Your task to perform on an android device: turn pop-ups off in chrome Image 0: 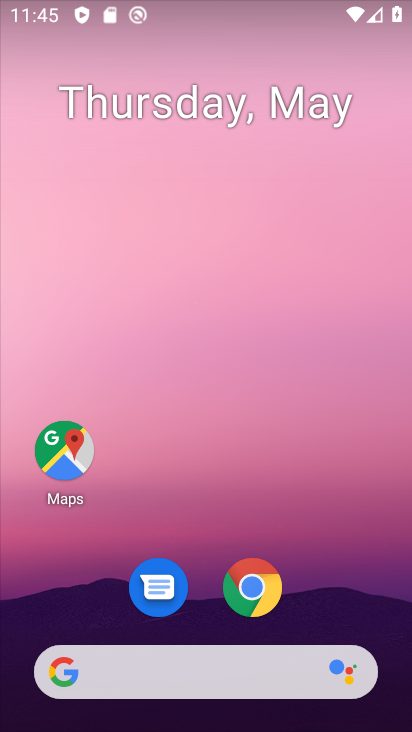
Step 0: click (264, 587)
Your task to perform on an android device: turn pop-ups off in chrome Image 1: 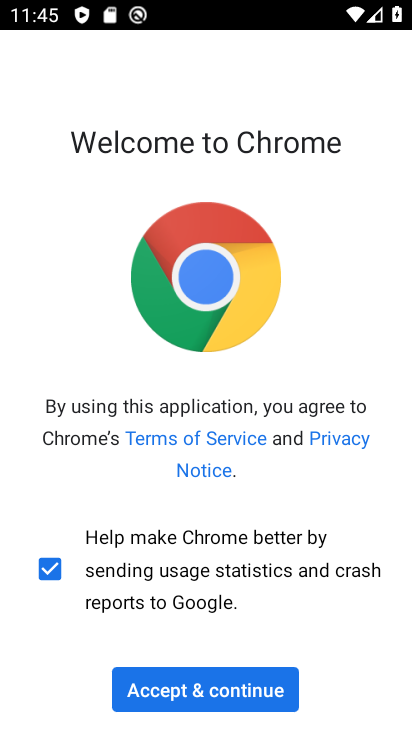
Step 1: click (245, 699)
Your task to perform on an android device: turn pop-ups off in chrome Image 2: 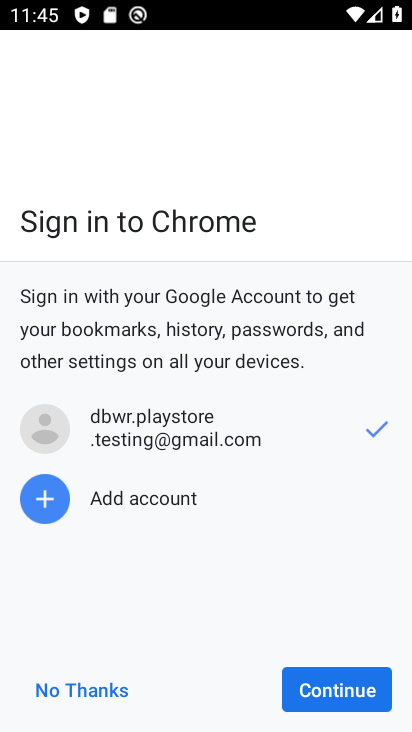
Step 2: click (376, 697)
Your task to perform on an android device: turn pop-ups off in chrome Image 3: 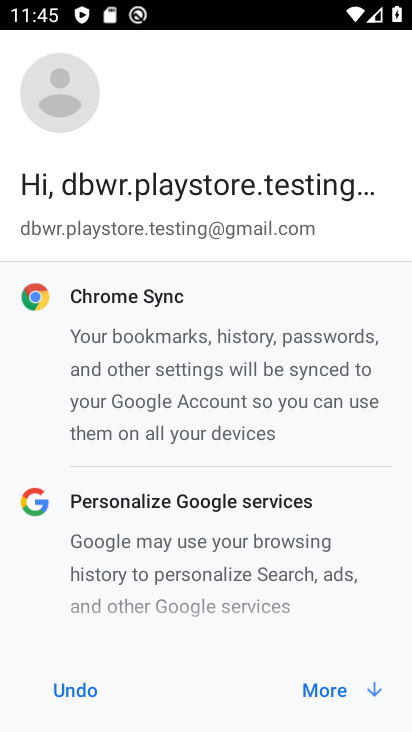
Step 3: click (350, 688)
Your task to perform on an android device: turn pop-ups off in chrome Image 4: 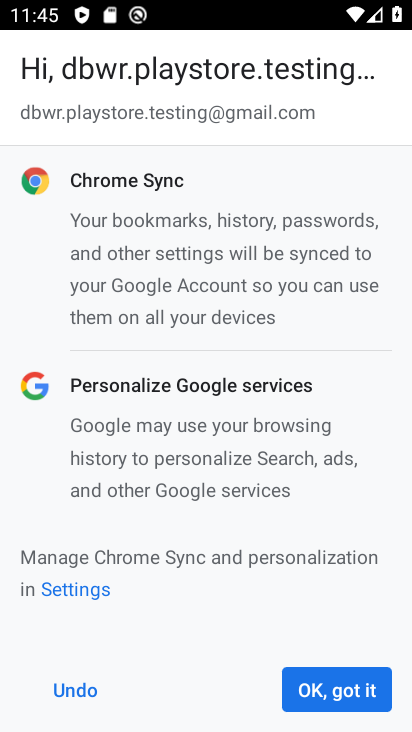
Step 4: click (350, 688)
Your task to perform on an android device: turn pop-ups off in chrome Image 5: 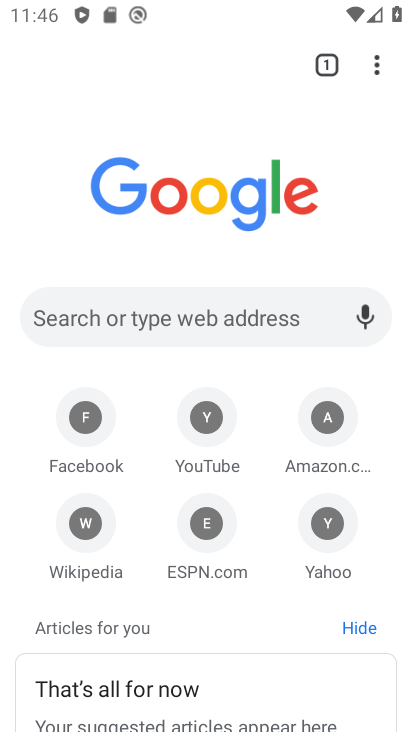
Step 5: click (378, 64)
Your task to perform on an android device: turn pop-ups off in chrome Image 6: 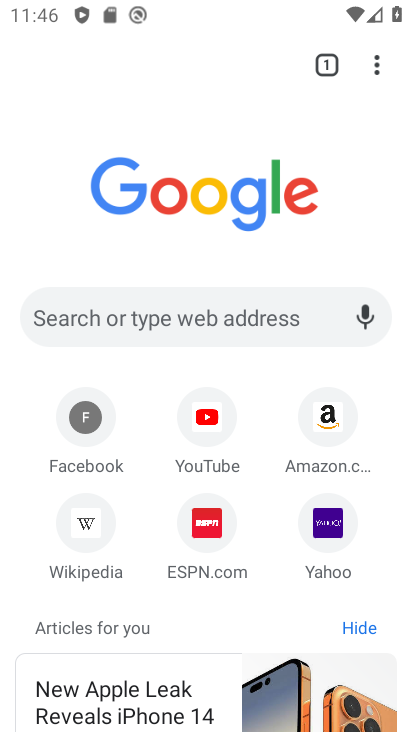
Step 6: click (374, 65)
Your task to perform on an android device: turn pop-ups off in chrome Image 7: 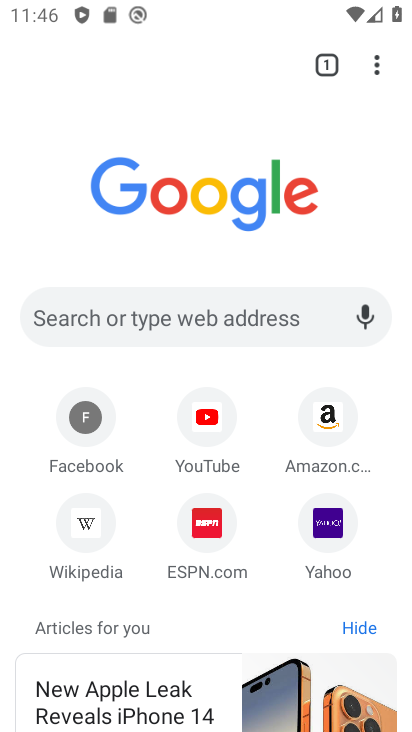
Step 7: click (373, 57)
Your task to perform on an android device: turn pop-ups off in chrome Image 8: 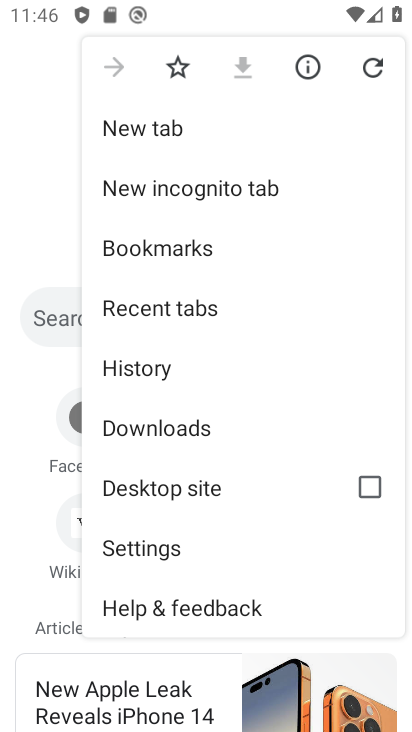
Step 8: click (179, 560)
Your task to perform on an android device: turn pop-ups off in chrome Image 9: 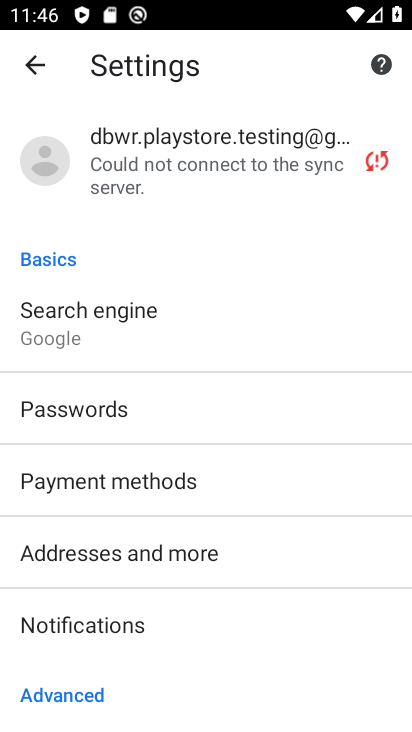
Step 9: drag from (317, 599) to (308, 214)
Your task to perform on an android device: turn pop-ups off in chrome Image 10: 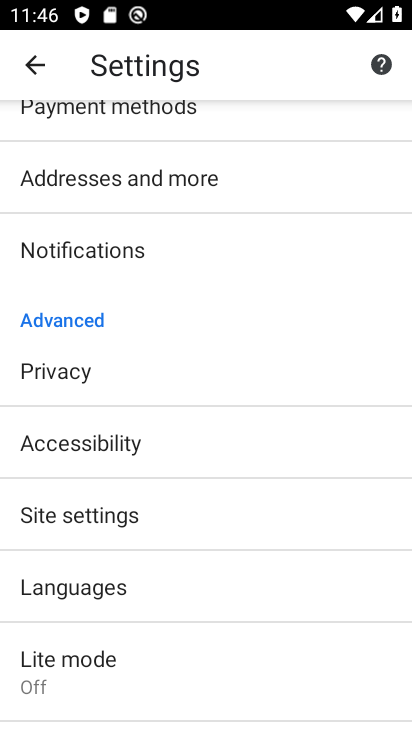
Step 10: click (107, 530)
Your task to perform on an android device: turn pop-ups off in chrome Image 11: 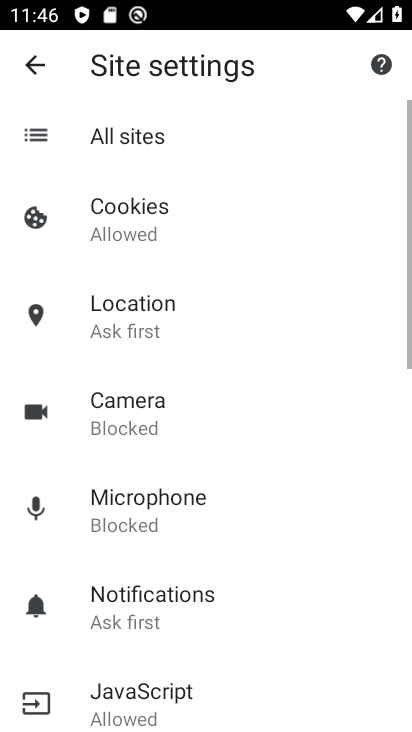
Step 11: drag from (269, 687) to (271, 314)
Your task to perform on an android device: turn pop-ups off in chrome Image 12: 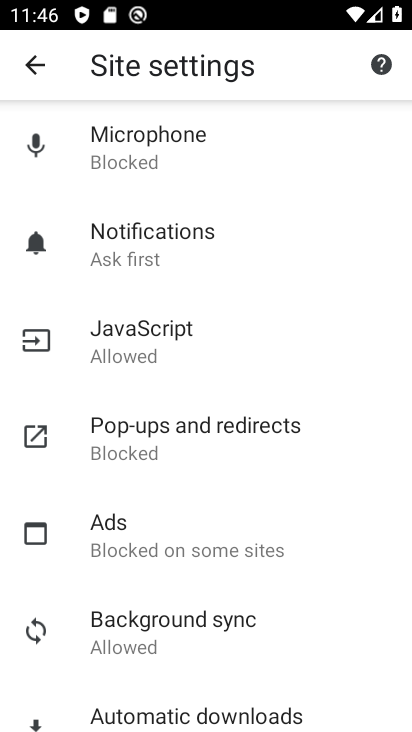
Step 12: click (193, 437)
Your task to perform on an android device: turn pop-ups off in chrome Image 13: 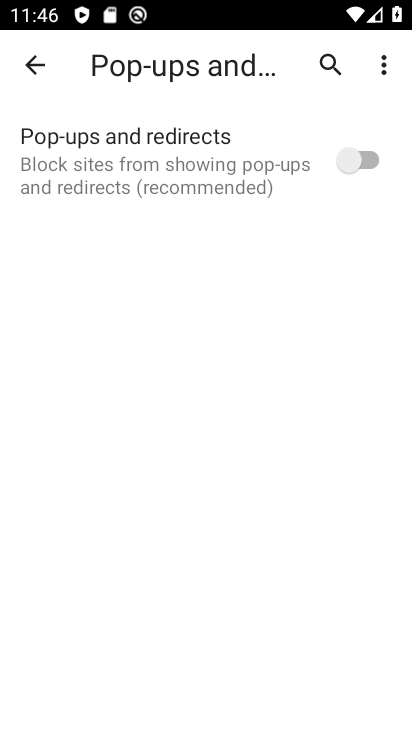
Step 13: task complete